Your task to perform on an android device: toggle notification dots Image 0: 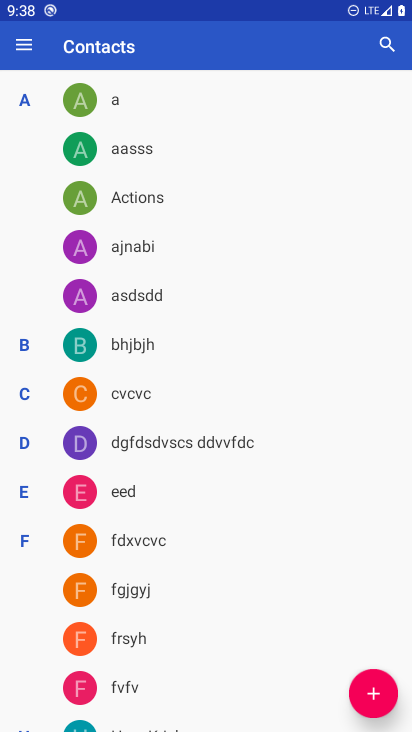
Step 0: press home button
Your task to perform on an android device: toggle notification dots Image 1: 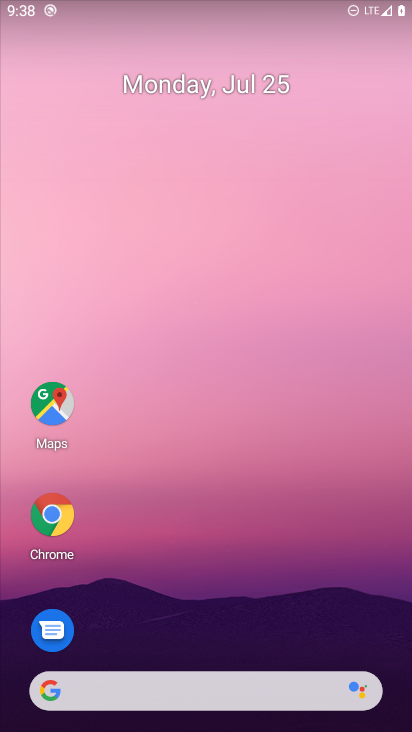
Step 1: drag from (10, 719) to (234, 0)
Your task to perform on an android device: toggle notification dots Image 2: 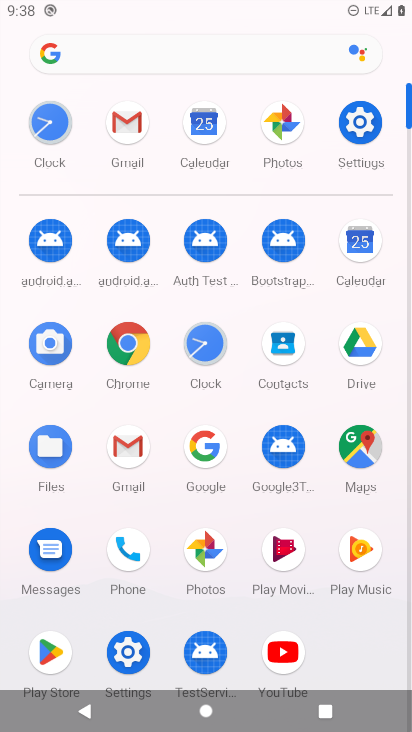
Step 2: click (138, 654)
Your task to perform on an android device: toggle notification dots Image 3: 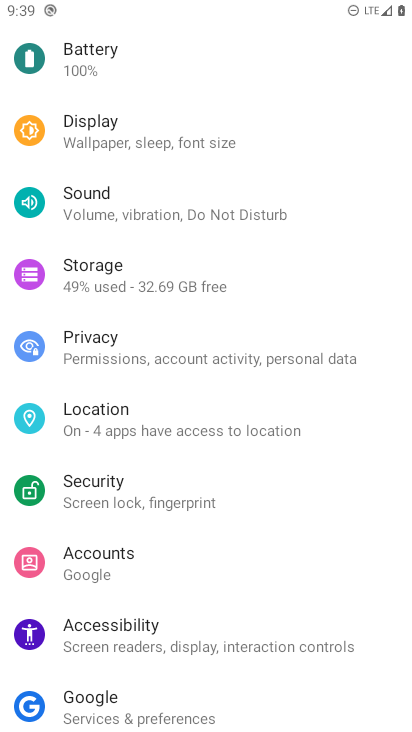
Step 3: drag from (247, 113) to (248, 384)
Your task to perform on an android device: toggle notification dots Image 4: 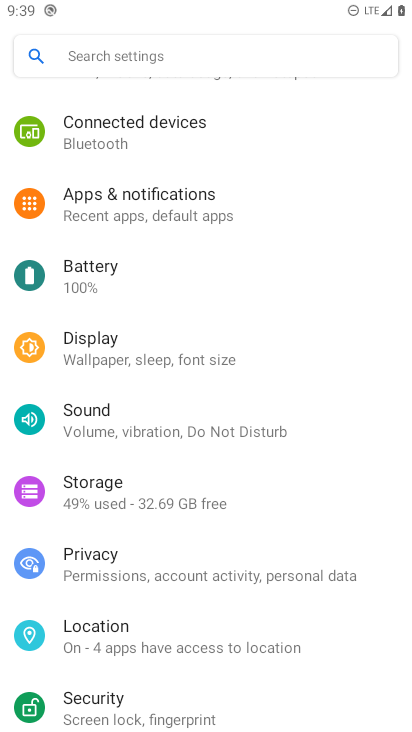
Step 4: click (154, 214)
Your task to perform on an android device: toggle notification dots Image 5: 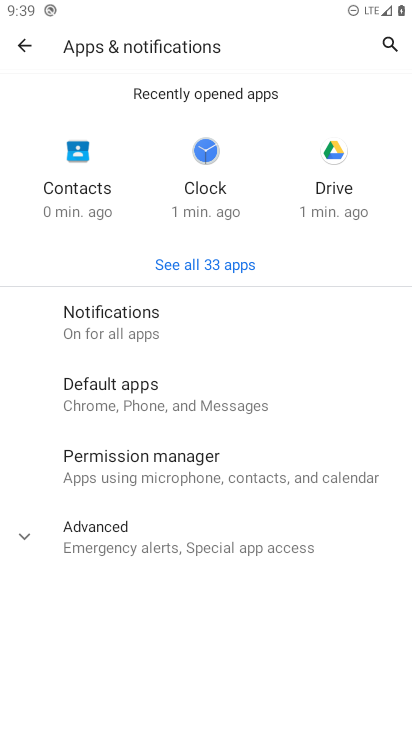
Step 5: click (141, 547)
Your task to perform on an android device: toggle notification dots Image 6: 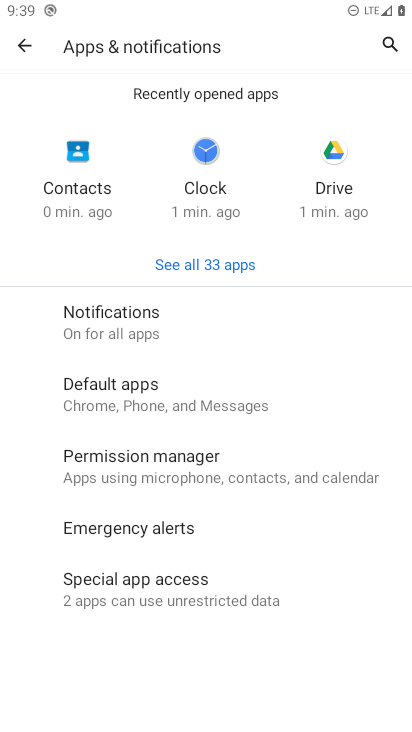
Step 6: click (156, 335)
Your task to perform on an android device: toggle notification dots Image 7: 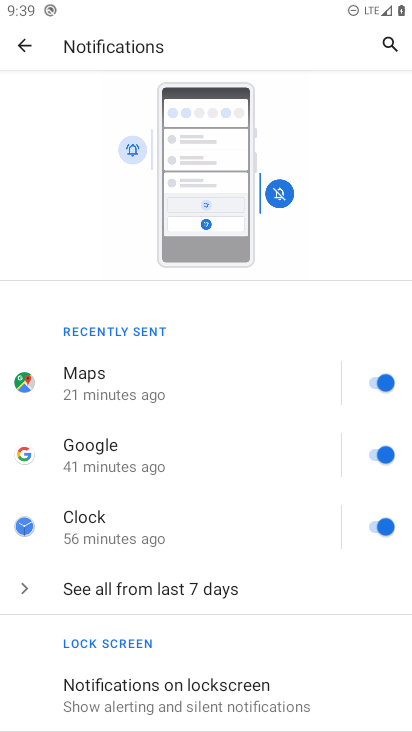
Step 7: drag from (275, 665) to (188, 53)
Your task to perform on an android device: toggle notification dots Image 8: 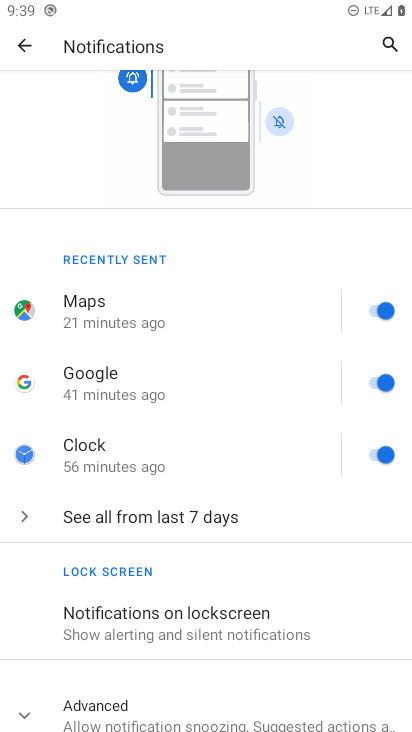
Step 8: drag from (223, 665) to (223, 329)
Your task to perform on an android device: toggle notification dots Image 9: 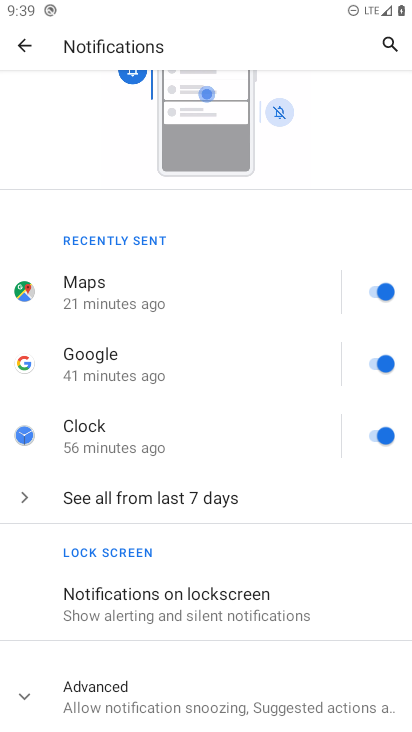
Step 9: click (157, 696)
Your task to perform on an android device: toggle notification dots Image 10: 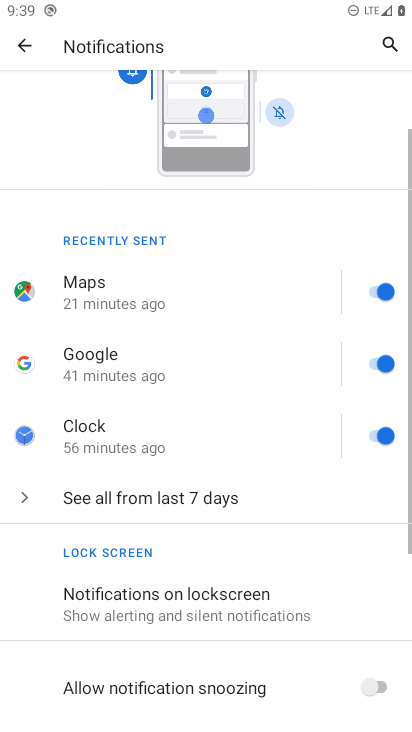
Step 10: task complete